Your task to perform on an android device: toggle sleep mode Image 0: 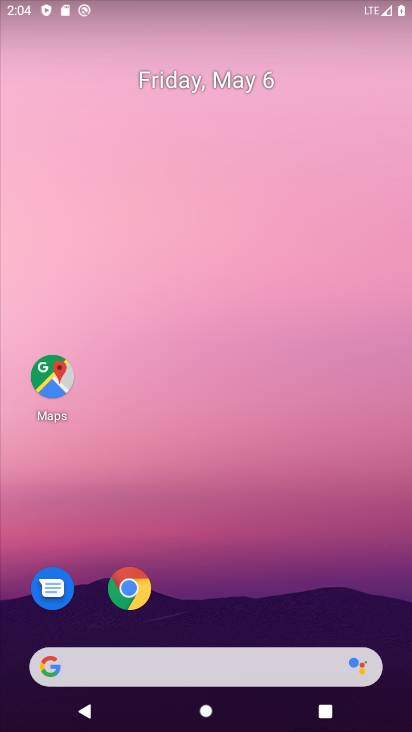
Step 0: drag from (293, 607) to (318, 148)
Your task to perform on an android device: toggle sleep mode Image 1: 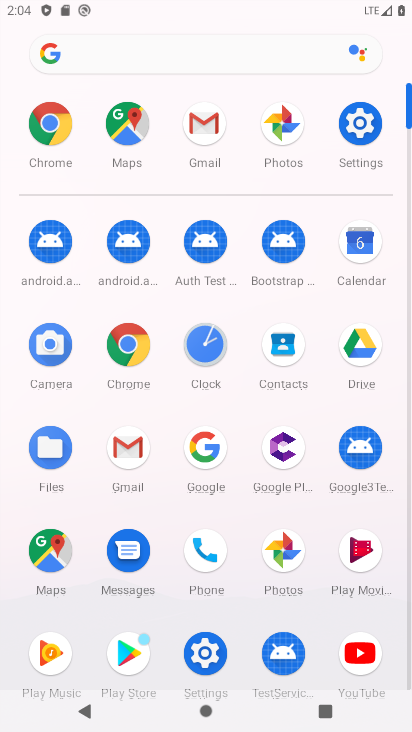
Step 1: click (219, 657)
Your task to perform on an android device: toggle sleep mode Image 2: 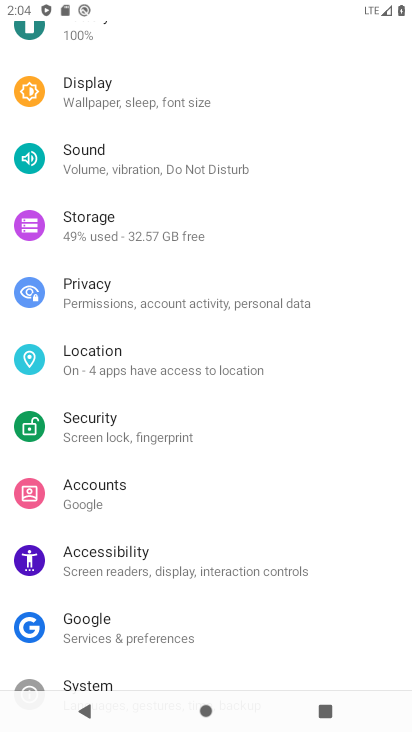
Step 2: drag from (206, 92) to (212, 510)
Your task to perform on an android device: toggle sleep mode Image 3: 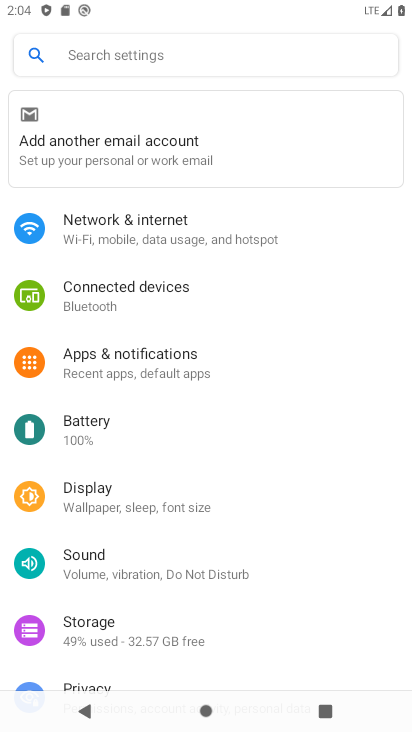
Step 3: click (124, 64)
Your task to perform on an android device: toggle sleep mode Image 4: 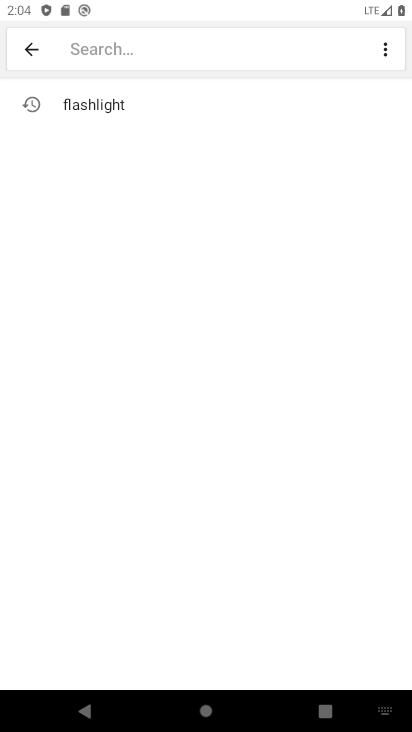
Step 4: type "sleep mode"
Your task to perform on an android device: toggle sleep mode Image 5: 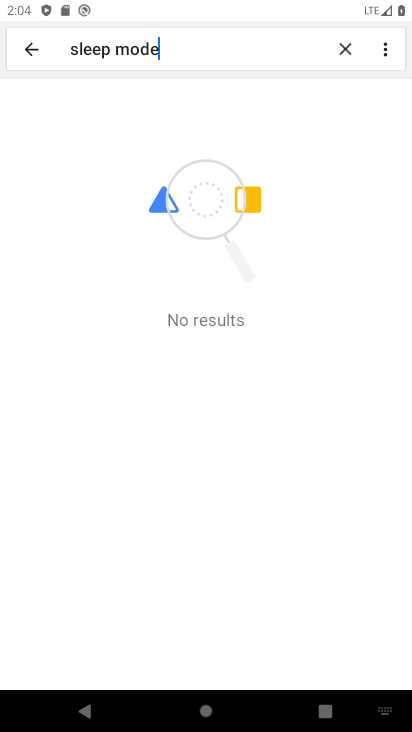
Step 5: task complete